Your task to perform on an android device: open app "Airtel Thanks" Image 0: 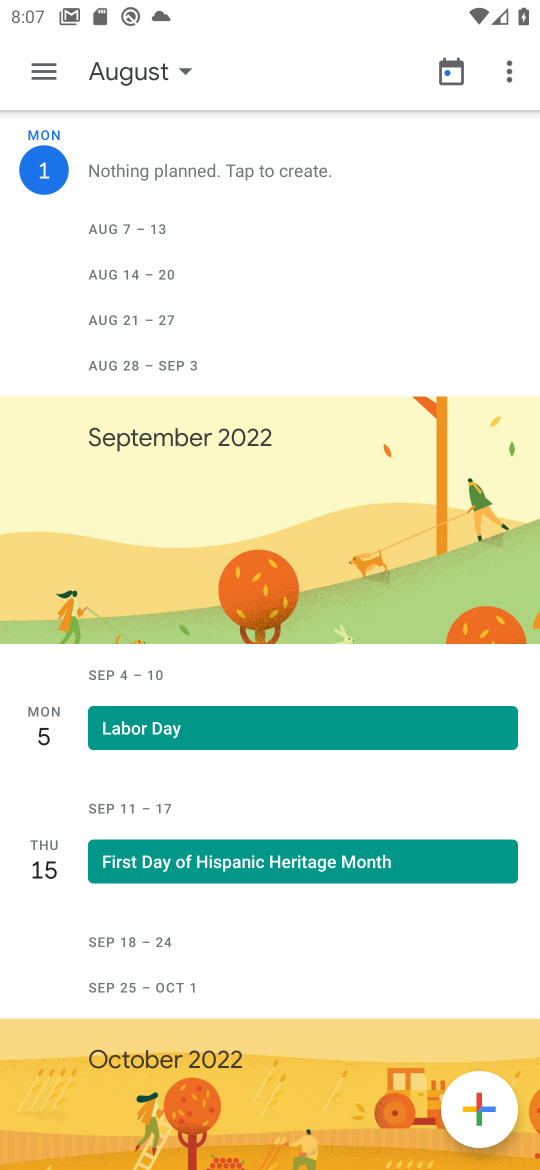
Step 0: press home button
Your task to perform on an android device: open app "Airtel Thanks" Image 1: 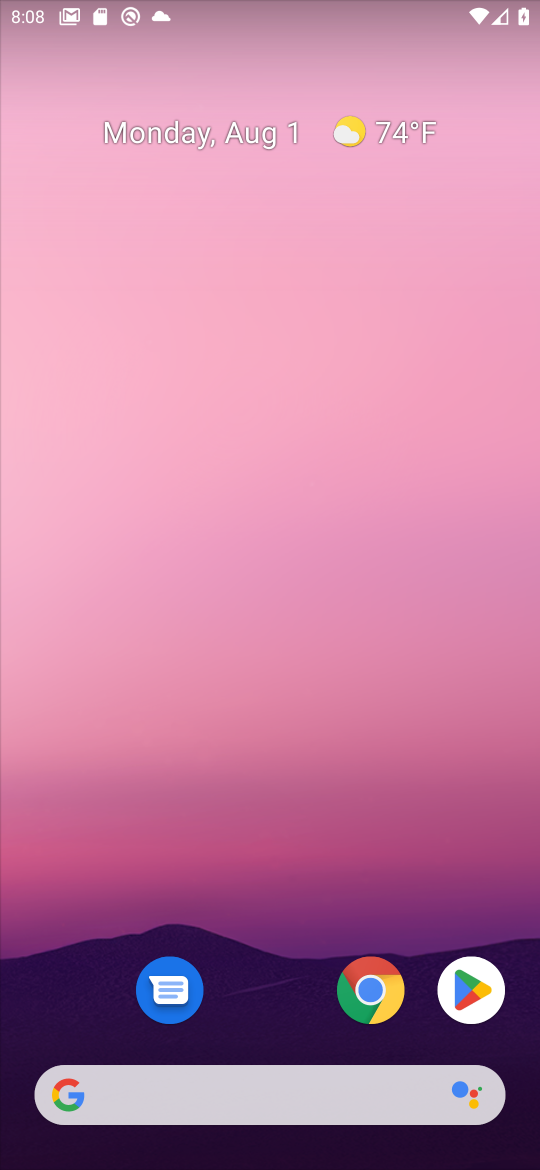
Step 1: click (459, 991)
Your task to perform on an android device: open app "Airtel Thanks" Image 2: 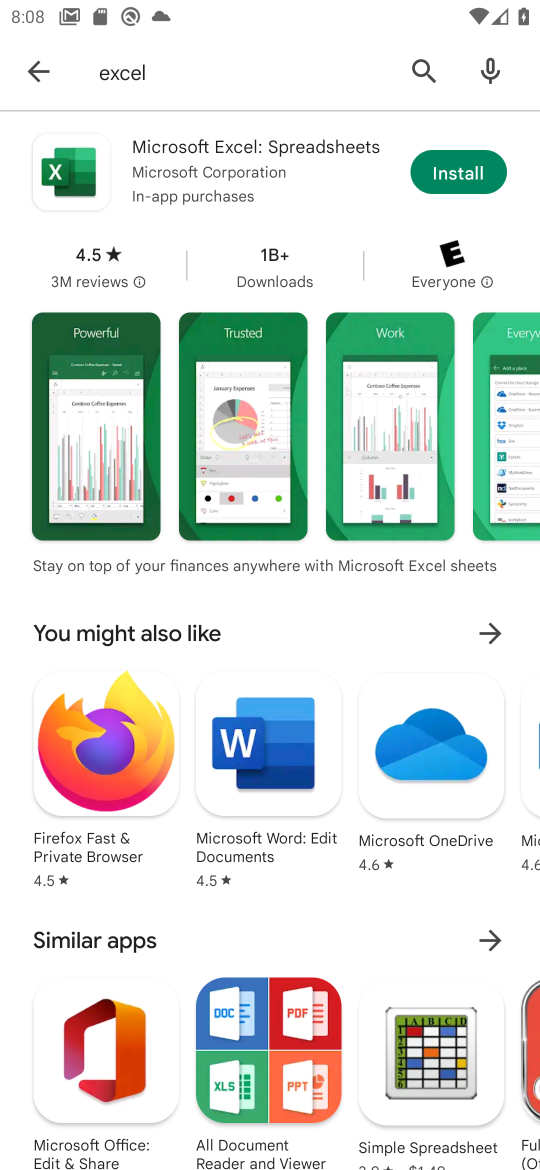
Step 2: click (416, 68)
Your task to perform on an android device: open app "Airtel Thanks" Image 3: 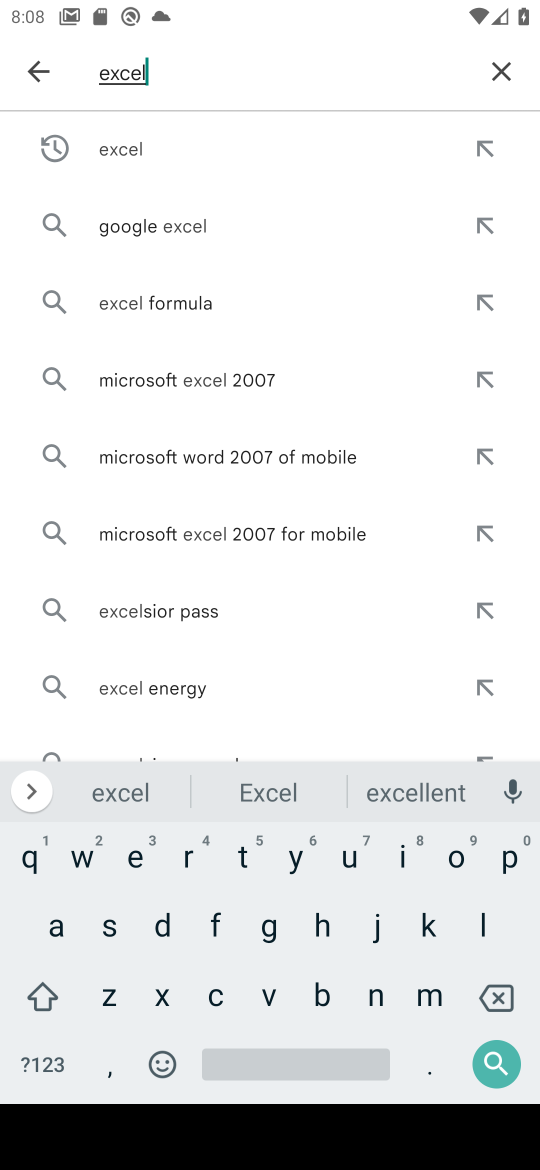
Step 3: click (500, 72)
Your task to perform on an android device: open app "Airtel Thanks" Image 4: 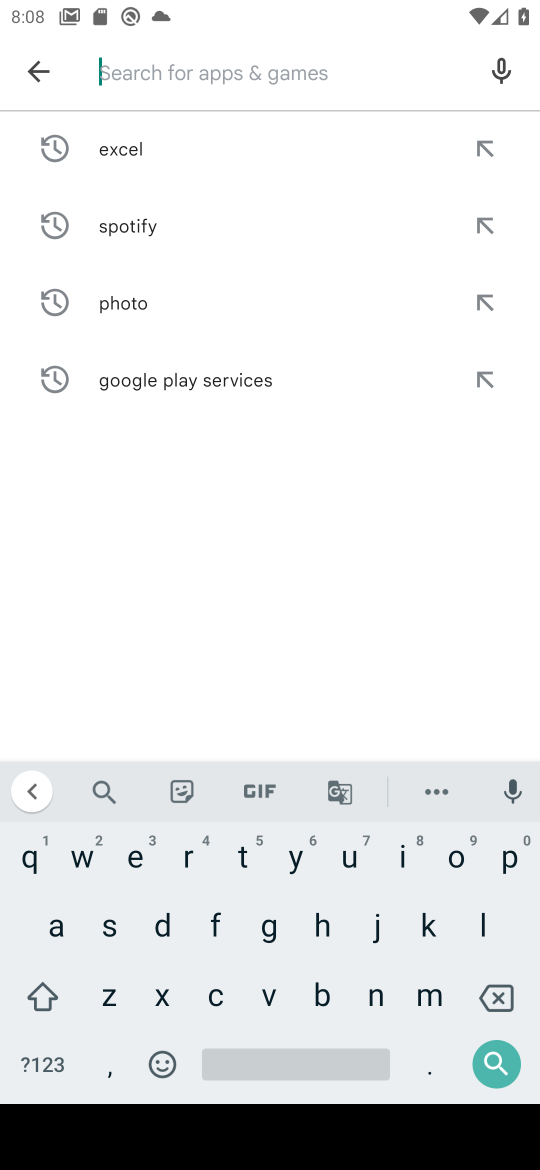
Step 4: type "airtel thanks"
Your task to perform on an android device: open app "Airtel Thanks" Image 5: 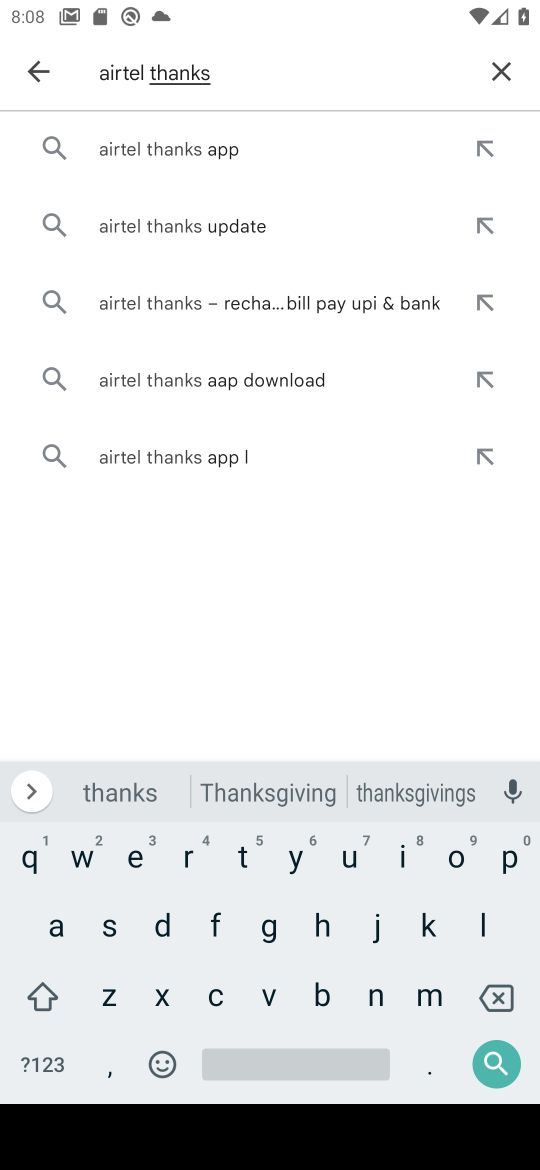
Step 5: click (196, 164)
Your task to perform on an android device: open app "Airtel Thanks" Image 6: 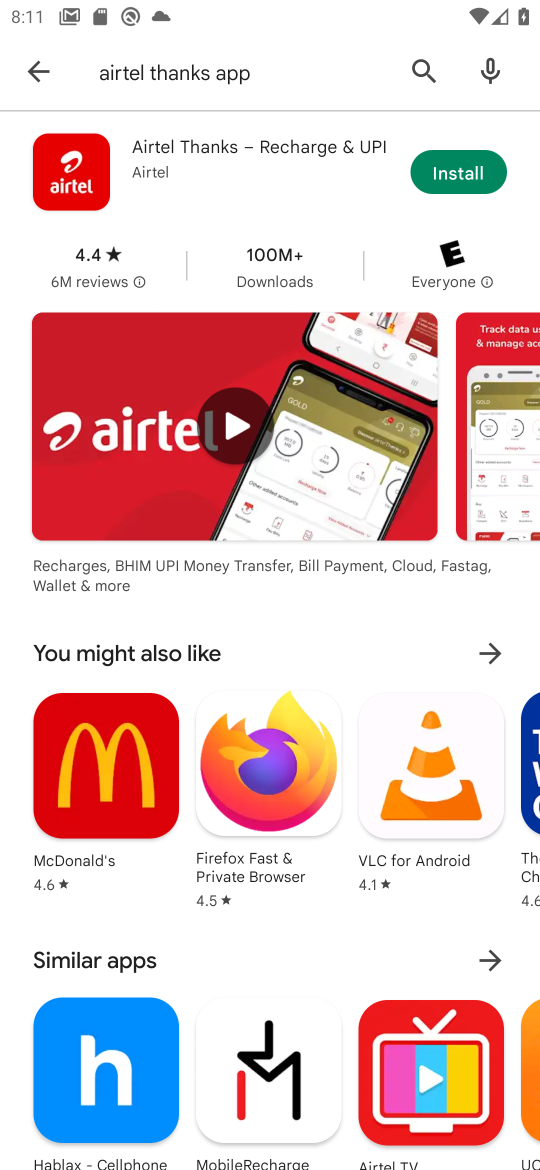
Step 6: task complete